Your task to perform on an android device: star an email in the gmail app Image 0: 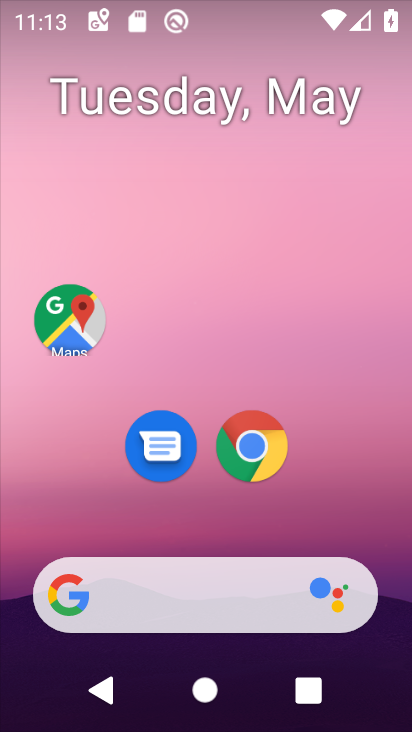
Step 0: drag from (332, 519) to (292, 149)
Your task to perform on an android device: star an email in the gmail app Image 1: 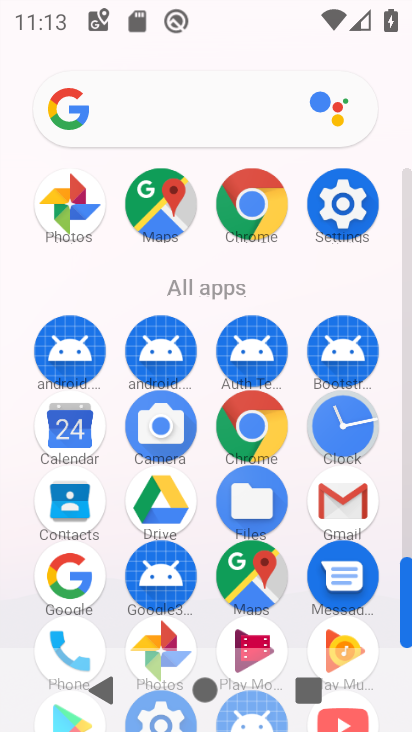
Step 1: click (338, 496)
Your task to perform on an android device: star an email in the gmail app Image 2: 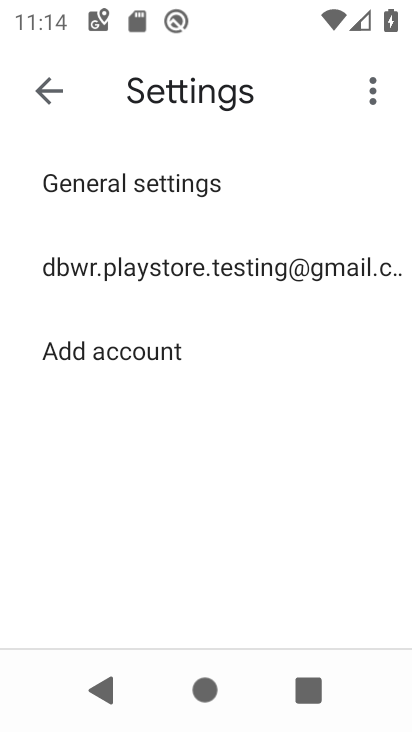
Step 2: press back button
Your task to perform on an android device: star an email in the gmail app Image 3: 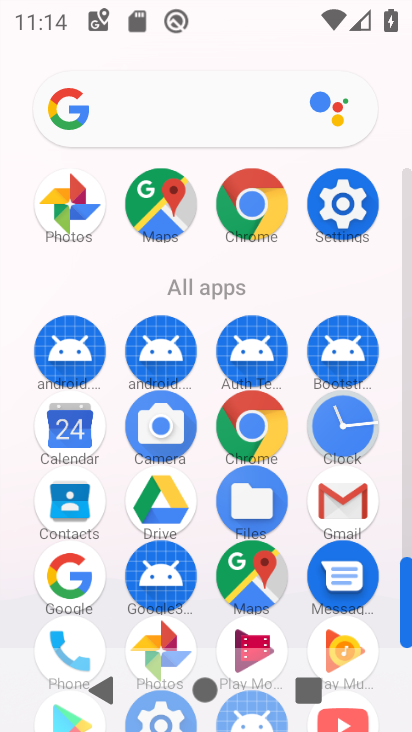
Step 3: click (346, 495)
Your task to perform on an android device: star an email in the gmail app Image 4: 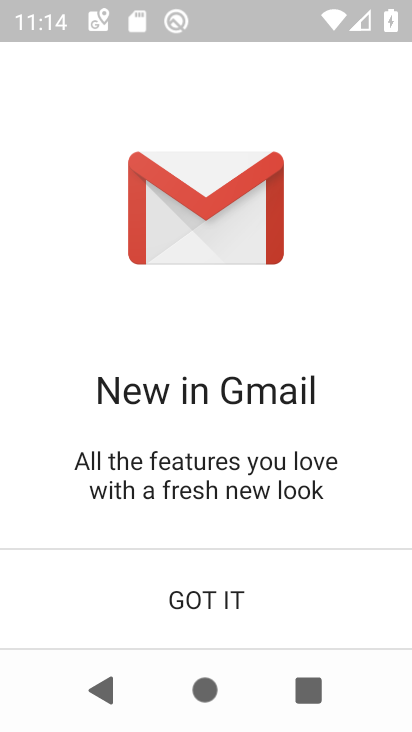
Step 4: click (195, 598)
Your task to perform on an android device: star an email in the gmail app Image 5: 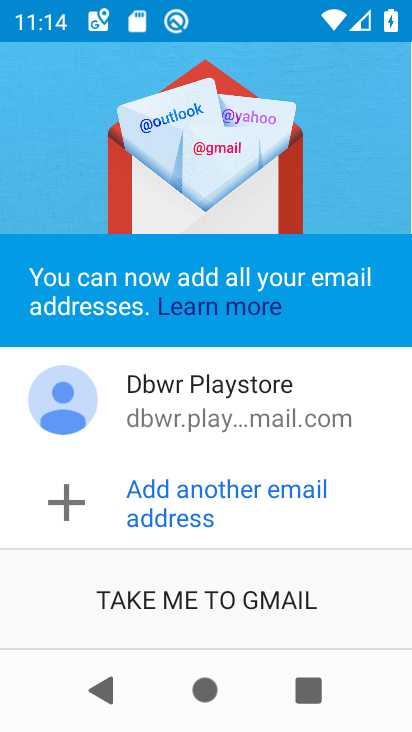
Step 5: click (195, 598)
Your task to perform on an android device: star an email in the gmail app Image 6: 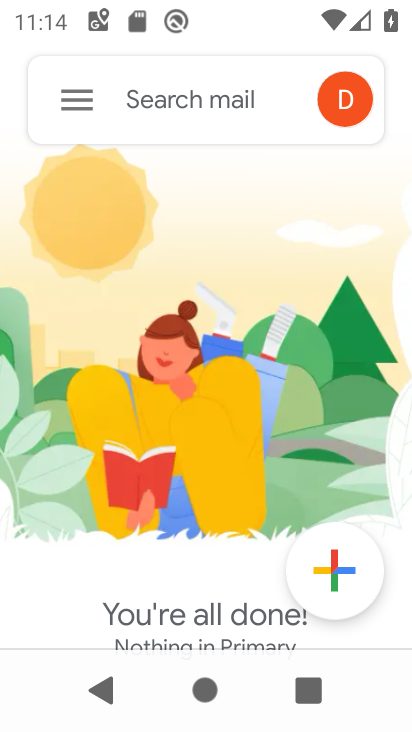
Step 6: click (76, 104)
Your task to perform on an android device: star an email in the gmail app Image 7: 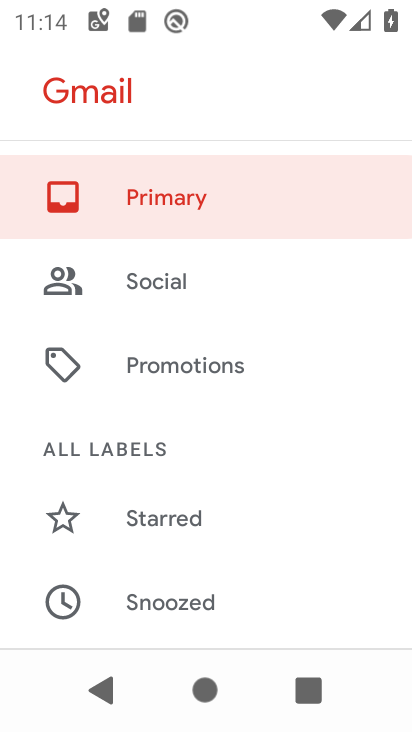
Step 7: drag from (166, 487) to (224, 381)
Your task to perform on an android device: star an email in the gmail app Image 8: 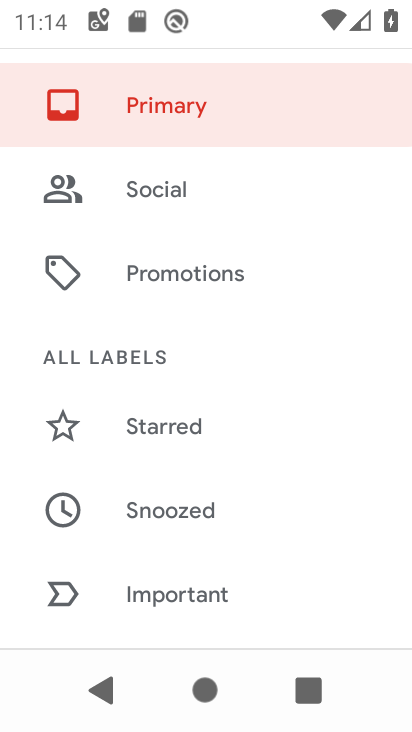
Step 8: click (204, 430)
Your task to perform on an android device: star an email in the gmail app Image 9: 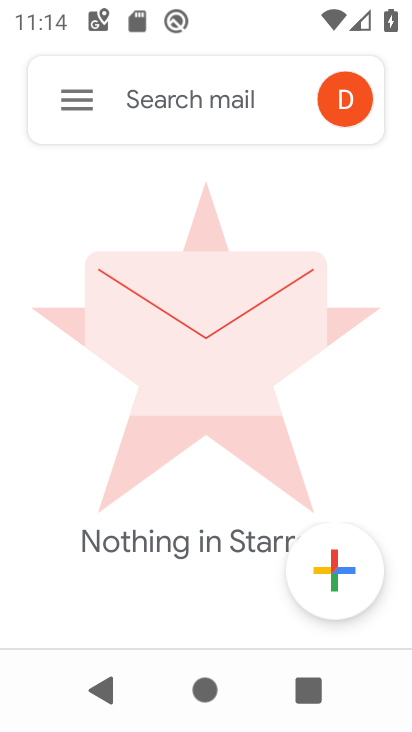
Step 9: click (68, 102)
Your task to perform on an android device: star an email in the gmail app Image 10: 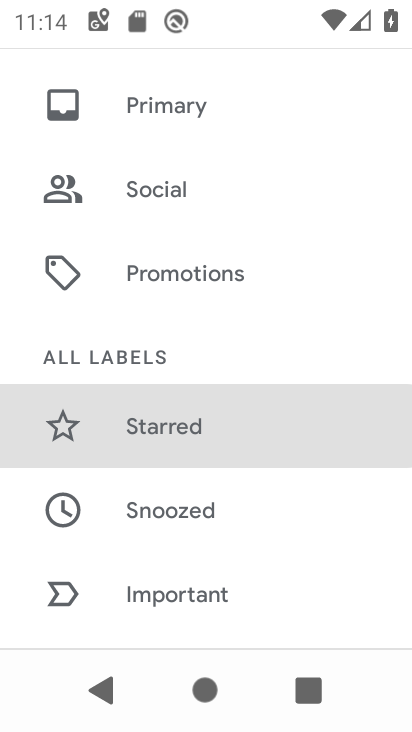
Step 10: drag from (180, 525) to (223, 437)
Your task to perform on an android device: star an email in the gmail app Image 11: 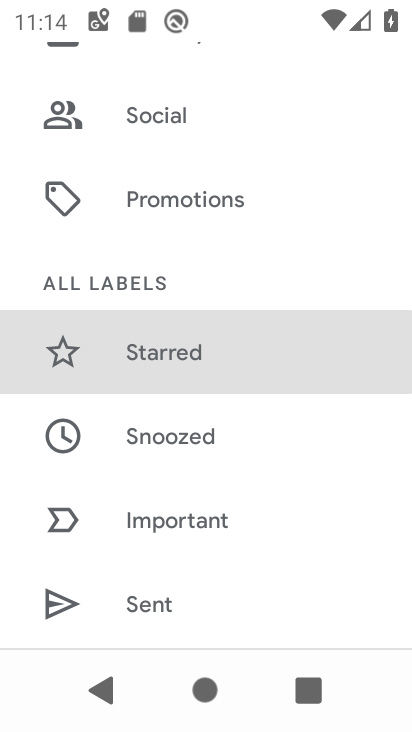
Step 11: drag from (222, 490) to (256, 440)
Your task to perform on an android device: star an email in the gmail app Image 12: 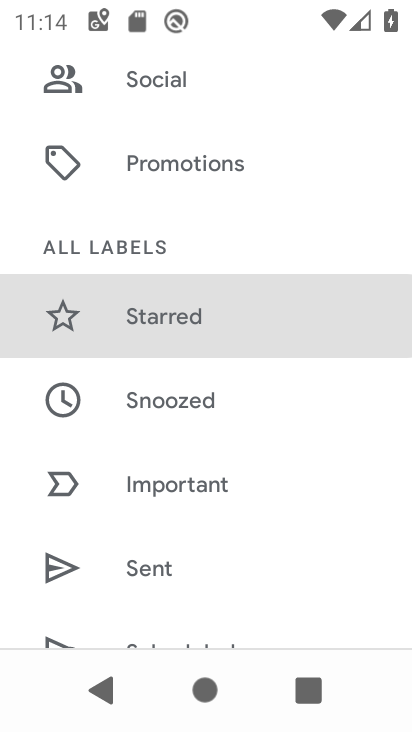
Step 12: drag from (170, 556) to (236, 457)
Your task to perform on an android device: star an email in the gmail app Image 13: 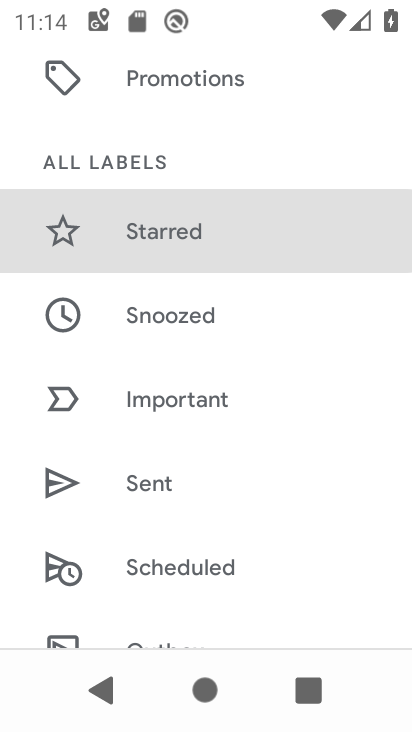
Step 13: click (242, 445)
Your task to perform on an android device: star an email in the gmail app Image 14: 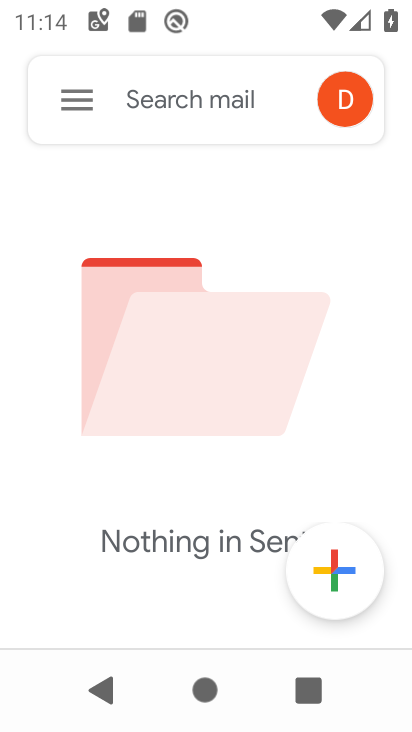
Step 14: click (69, 108)
Your task to perform on an android device: star an email in the gmail app Image 15: 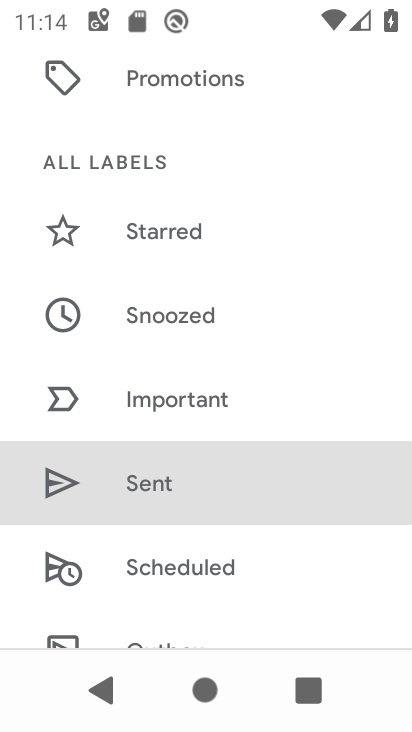
Step 15: drag from (172, 530) to (233, 416)
Your task to perform on an android device: star an email in the gmail app Image 16: 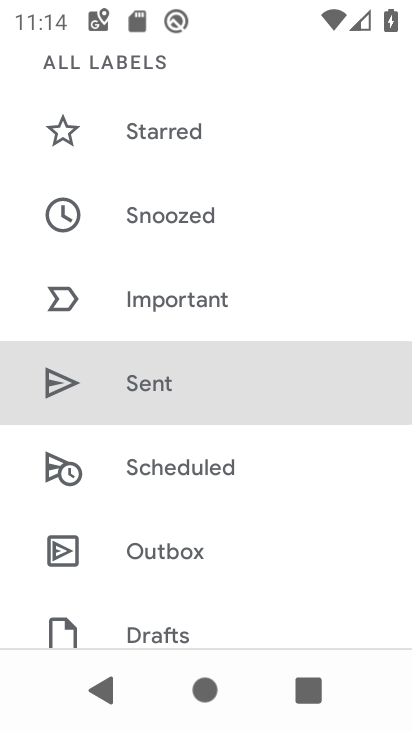
Step 16: drag from (168, 590) to (248, 474)
Your task to perform on an android device: star an email in the gmail app Image 17: 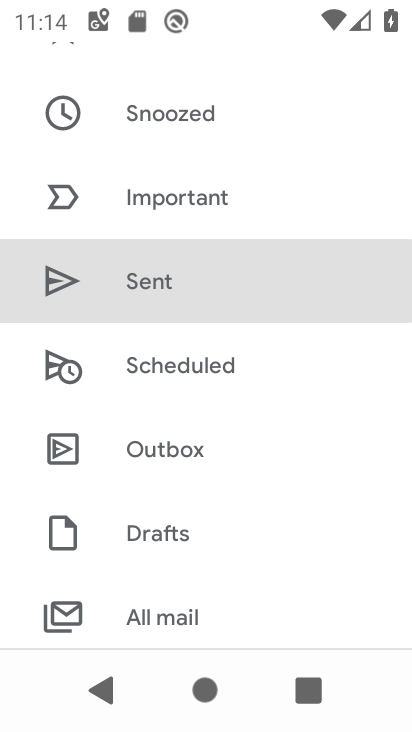
Step 17: drag from (183, 539) to (257, 459)
Your task to perform on an android device: star an email in the gmail app Image 18: 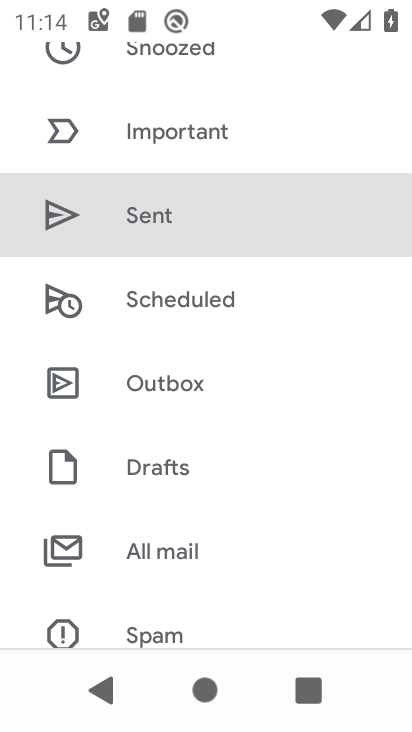
Step 18: click (184, 550)
Your task to perform on an android device: star an email in the gmail app Image 19: 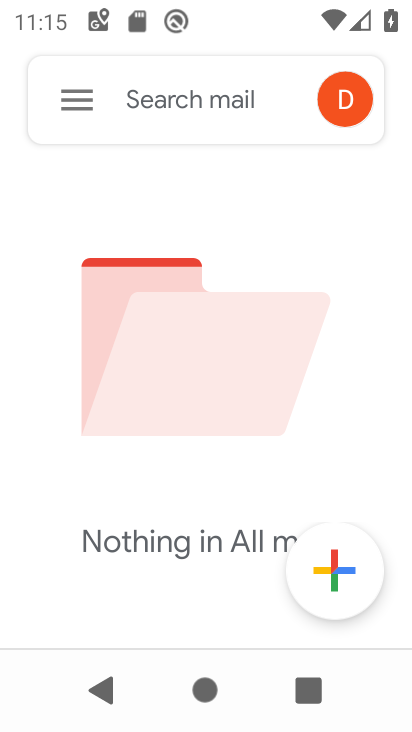
Step 19: task complete